Your task to perform on an android device: Find coffee shops on Maps Image 0: 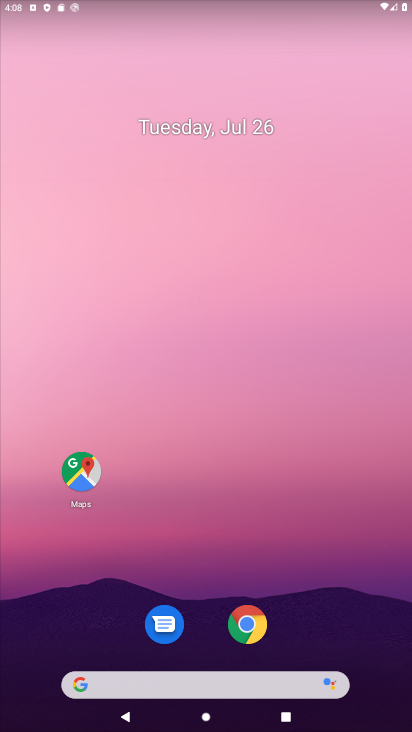
Step 0: drag from (209, 457) to (286, 31)
Your task to perform on an android device: Find coffee shops on Maps Image 1: 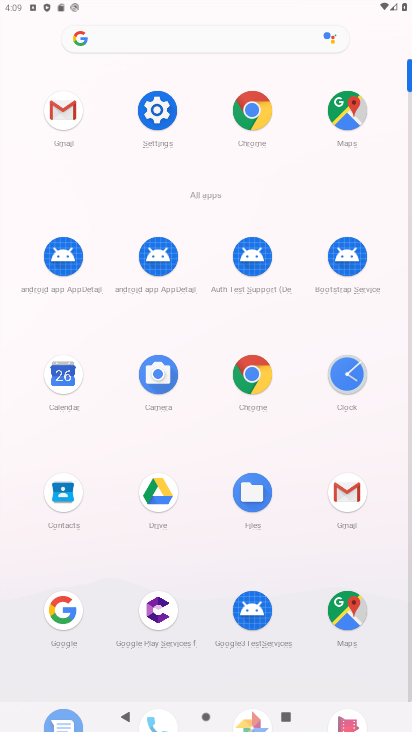
Step 1: click (351, 600)
Your task to perform on an android device: Find coffee shops on Maps Image 2: 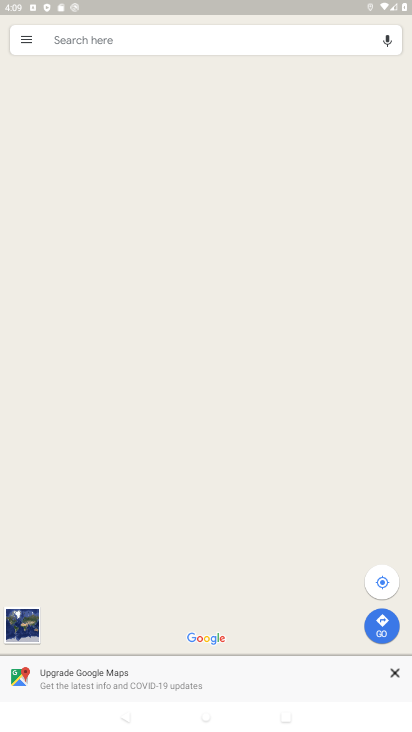
Step 2: click (197, 37)
Your task to perform on an android device: Find coffee shops on Maps Image 3: 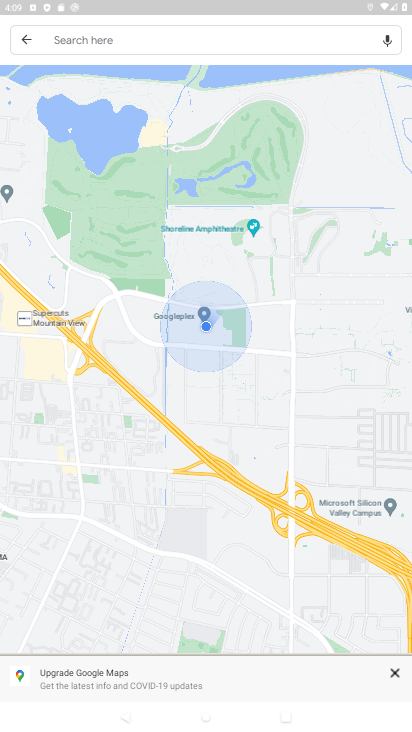
Step 3: click (233, 48)
Your task to perform on an android device: Find coffee shops on Maps Image 4: 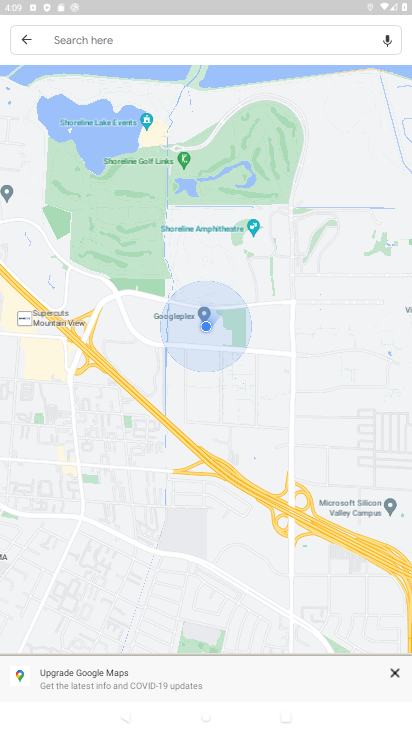
Step 4: click (233, 48)
Your task to perform on an android device: Find coffee shops on Maps Image 5: 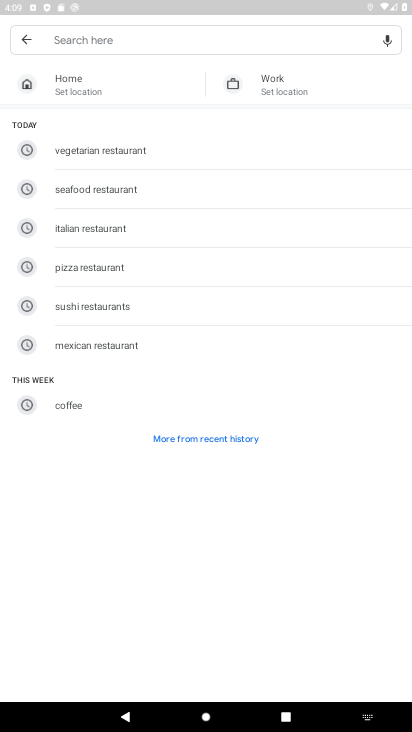
Step 5: type "coffee shops"
Your task to perform on an android device: Find coffee shops on Maps Image 6: 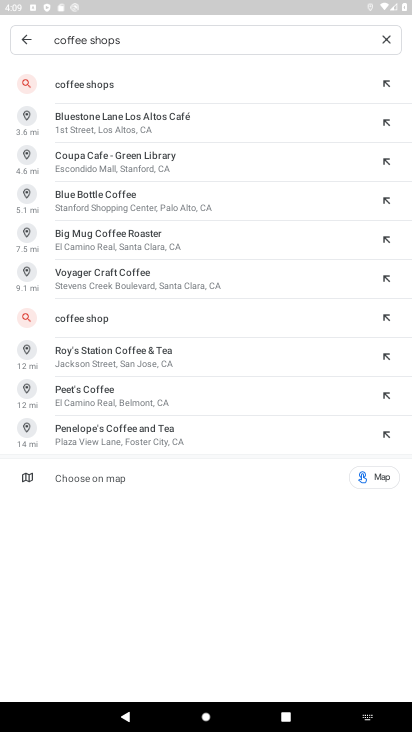
Step 6: click (73, 82)
Your task to perform on an android device: Find coffee shops on Maps Image 7: 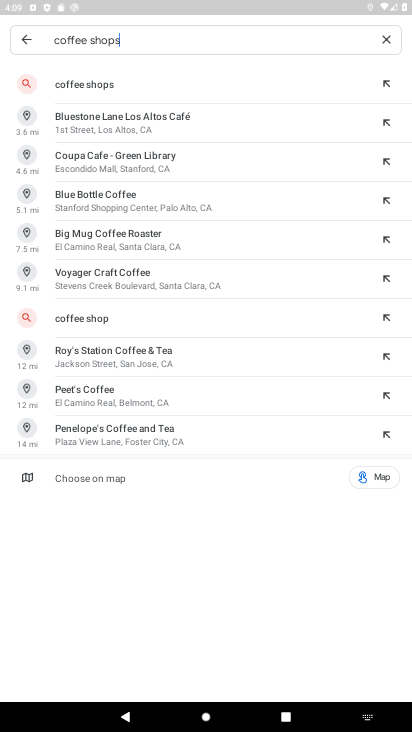
Step 7: click (73, 82)
Your task to perform on an android device: Find coffee shops on Maps Image 8: 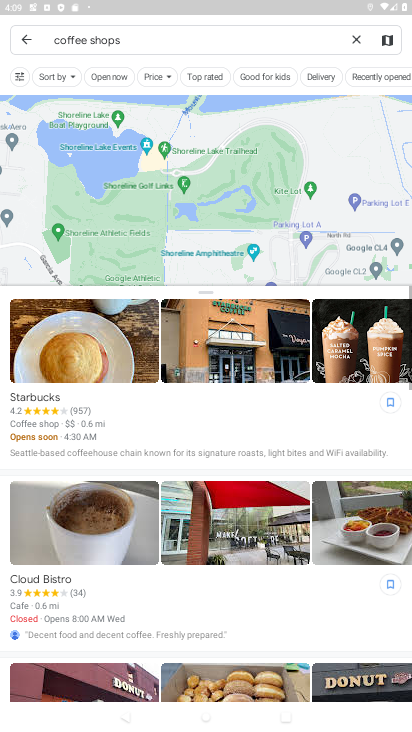
Step 8: task complete